Your task to perform on an android device: Search for Mexican restaurants on Maps Image 0: 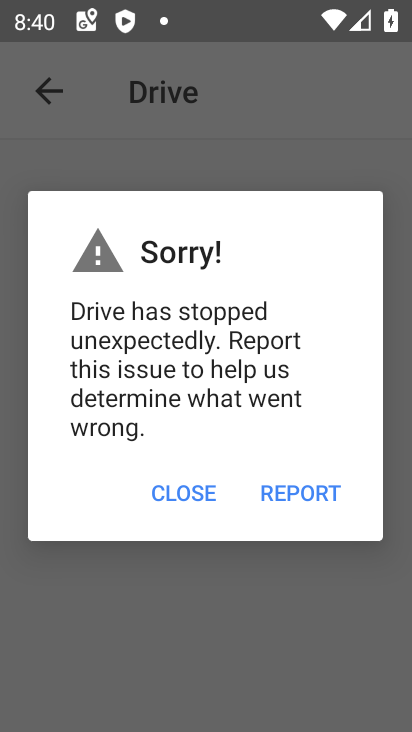
Step 0: press home button
Your task to perform on an android device: Search for Mexican restaurants on Maps Image 1: 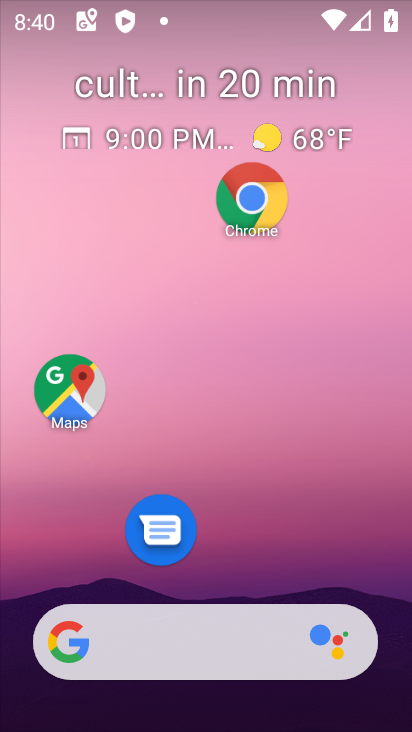
Step 1: click (76, 399)
Your task to perform on an android device: Search for Mexican restaurants on Maps Image 2: 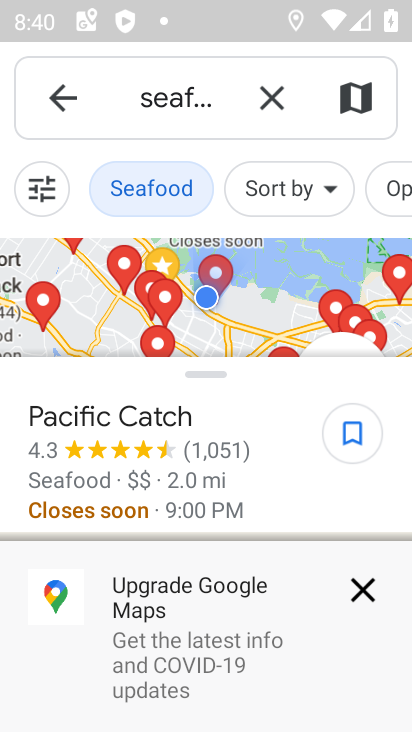
Step 2: click (279, 108)
Your task to perform on an android device: Search for Mexican restaurants on Maps Image 3: 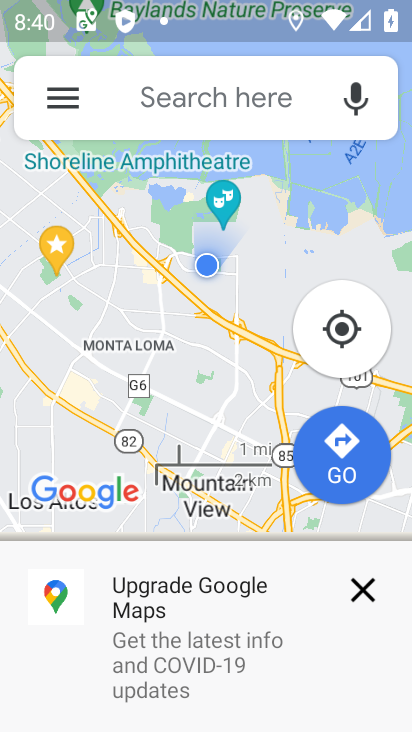
Step 3: click (192, 87)
Your task to perform on an android device: Search for Mexican restaurants on Maps Image 4: 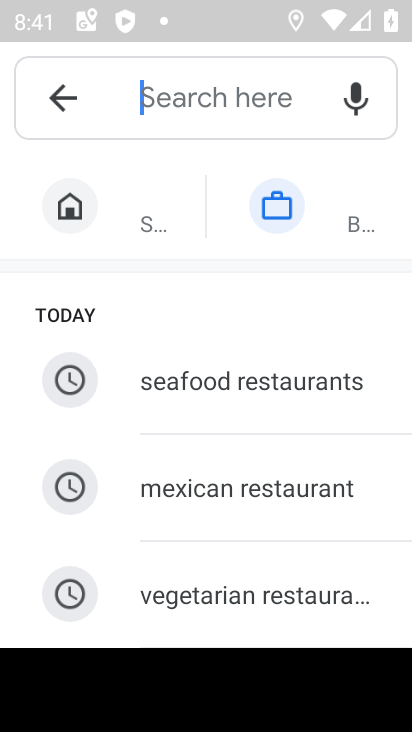
Step 4: click (249, 491)
Your task to perform on an android device: Search for Mexican restaurants on Maps Image 5: 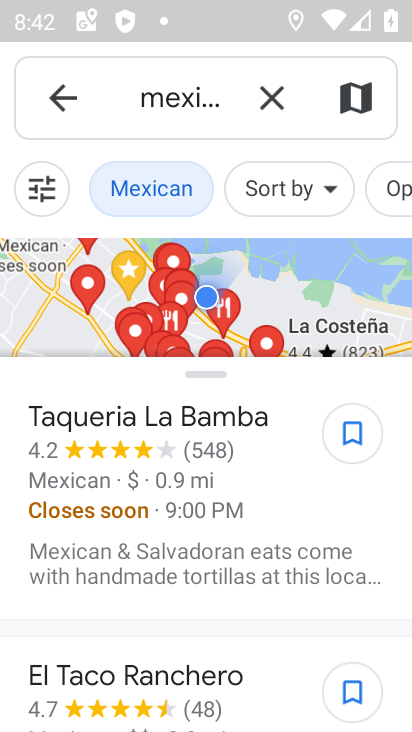
Step 5: task complete